Your task to perform on an android device: What's on my calendar tomorrow? Image 0: 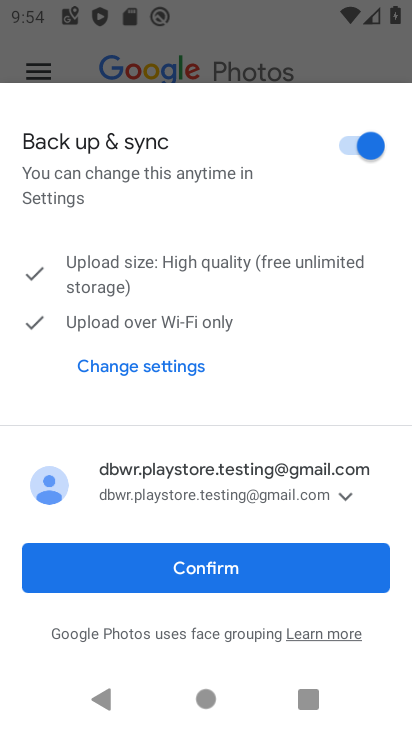
Step 0: press home button
Your task to perform on an android device: What's on my calendar tomorrow? Image 1: 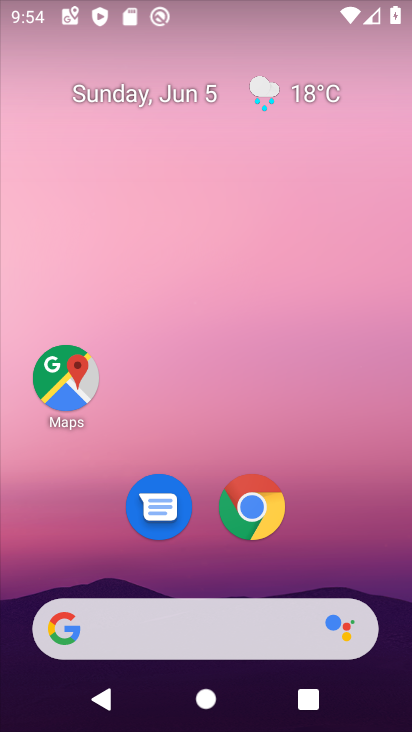
Step 1: drag from (190, 581) to (220, 43)
Your task to perform on an android device: What's on my calendar tomorrow? Image 2: 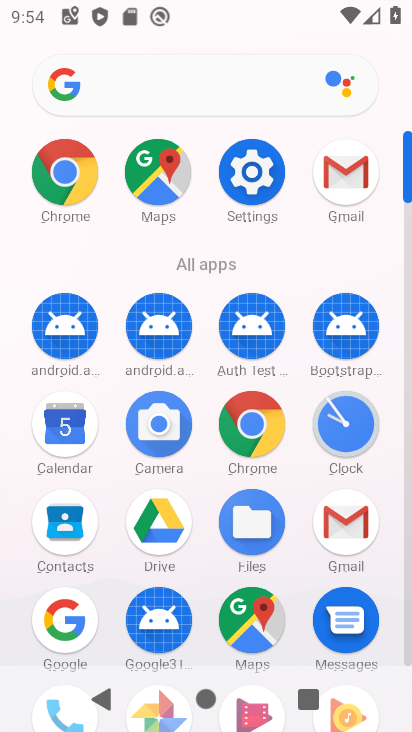
Step 2: click (59, 434)
Your task to perform on an android device: What's on my calendar tomorrow? Image 3: 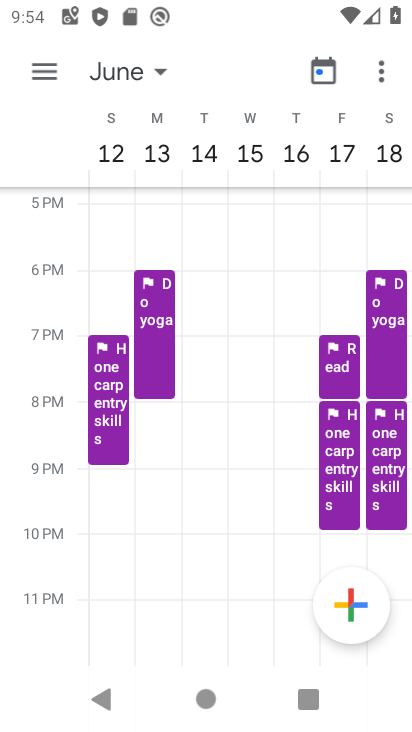
Step 3: drag from (142, 153) to (405, 159)
Your task to perform on an android device: What's on my calendar tomorrow? Image 4: 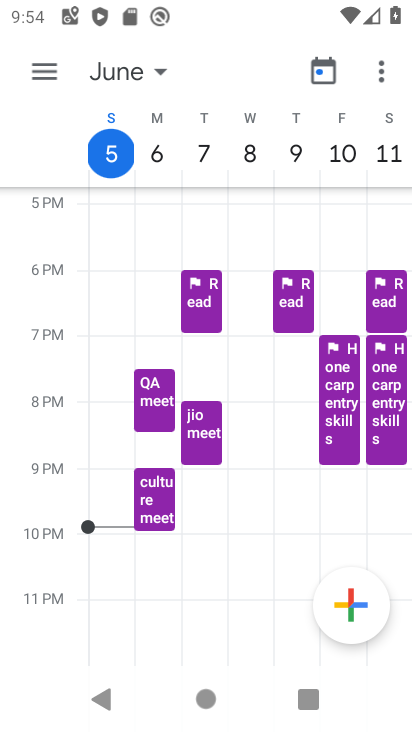
Step 4: click (52, 72)
Your task to perform on an android device: What's on my calendar tomorrow? Image 5: 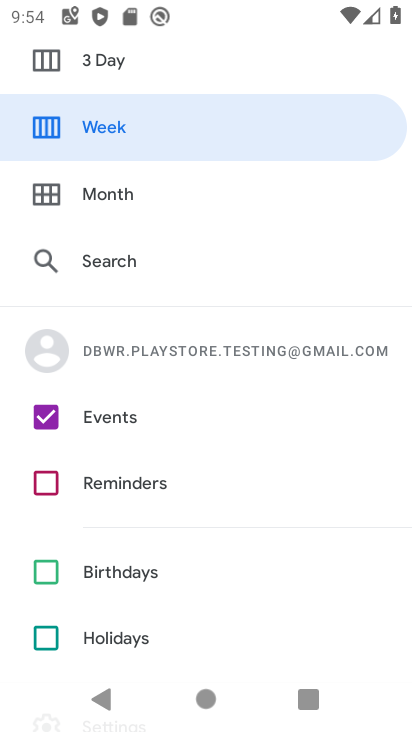
Step 5: click (70, 480)
Your task to perform on an android device: What's on my calendar tomorrow? Image 6: 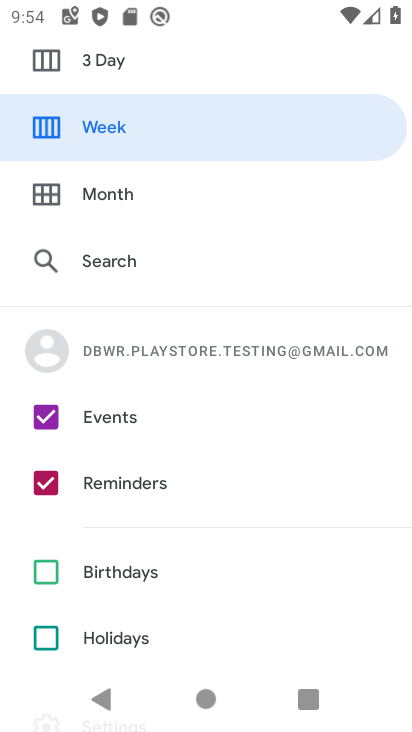
Step 6: click (45, 578)
Your task to perform on an android device: What's on my calendar tomorrow? Image 7: 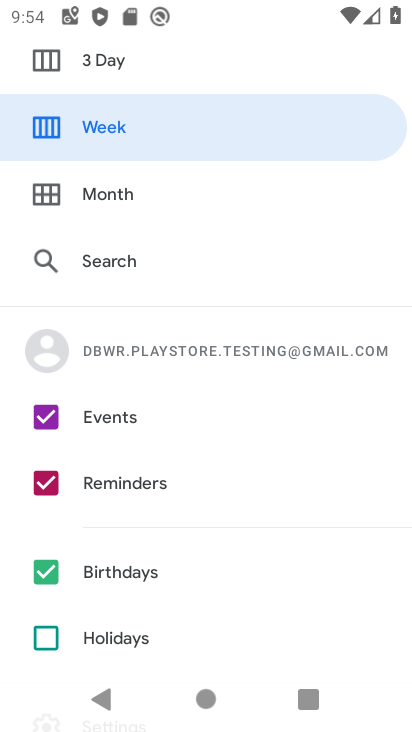
Step 7: click (46, 629)
Your task to perform on an android device: What's on my calendar tomorrow? Image 8: 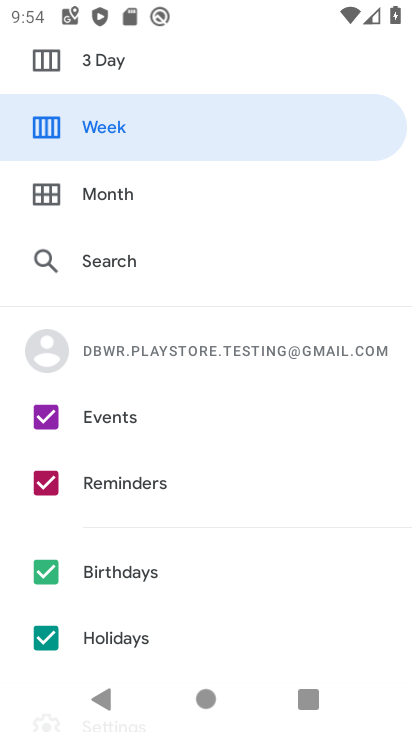
Step 8: click (118, 61)
Your task to perform on an android device: What's on my calendar tomorrow? Image 9: 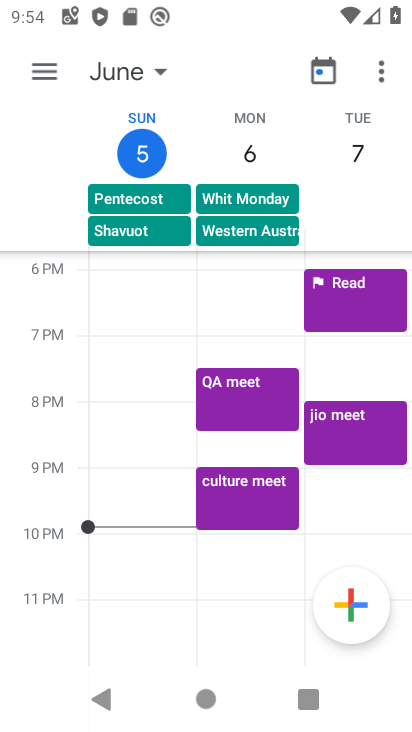
Step 9: task complete